Your task to perform on an android device: Open the Play Movies app and select the watchlist tab. Image 0: 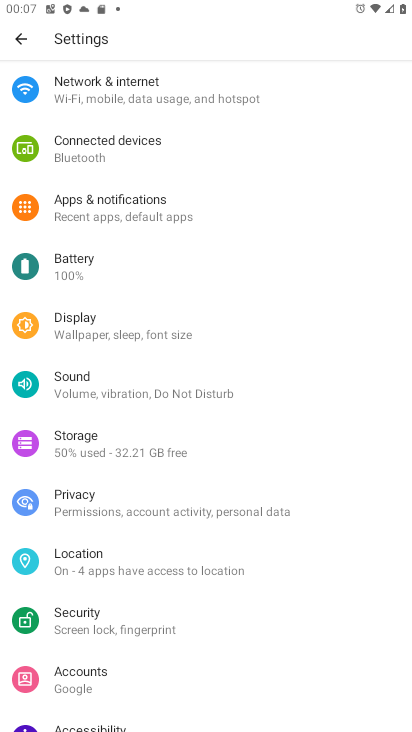
Step 0: press home button
Your task to perform on an android device: Open the Play Movies app and select the watchlist tab. Image 1: 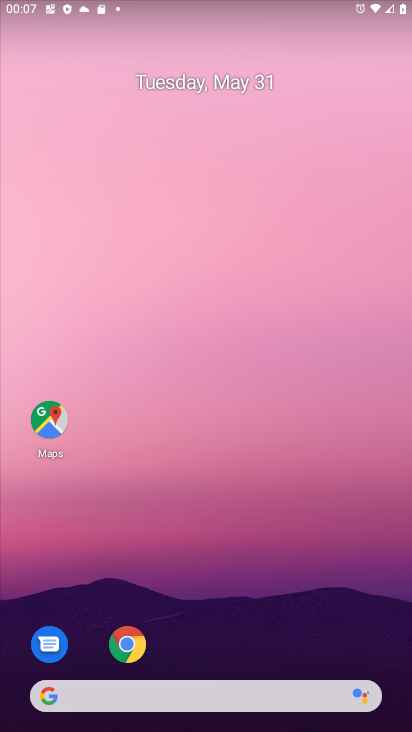
Step 1: drag from (378, 634) to (316, 183)
Your task to perform on an android device: Open the Play Movies app and select the watchlist tab. Image 2: 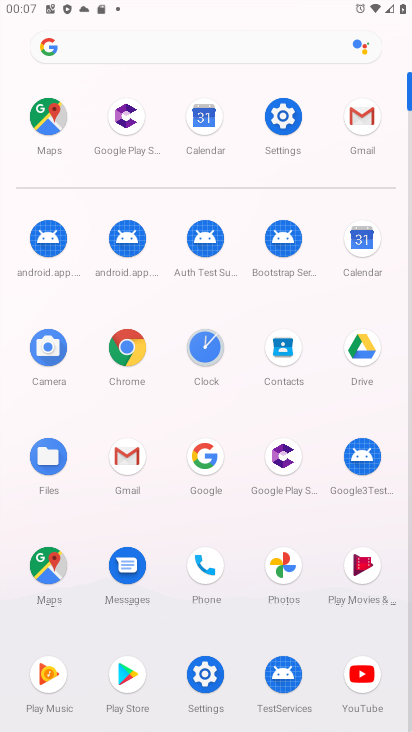
Step 2: click (363, 563)
Your task to perform on an android device: Open the Play Movies app and select the watchlist tab. Image 3: 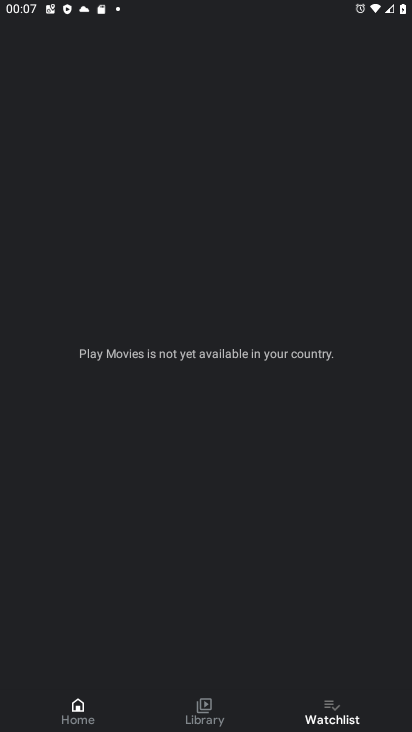
Step 3: click (333, 699)
Your task to perform on an android device: Open the Play Movies app and select the watchlist tab. Image 4: 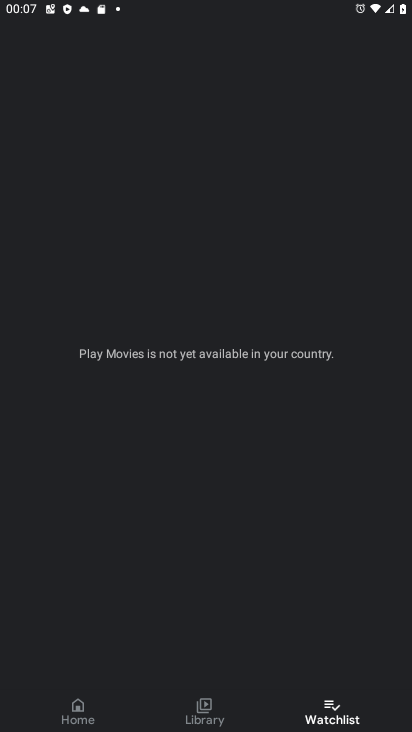
Step 4: task complete